Your task to perform on an android device: turn on data saver in the chrome app Image 0: 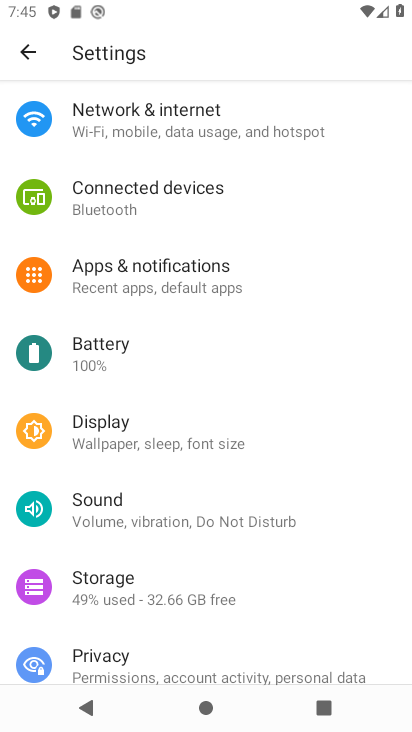
Step 0: press home button
Your task to perform on an android device: turn on data saver in the chrome app Image 1: 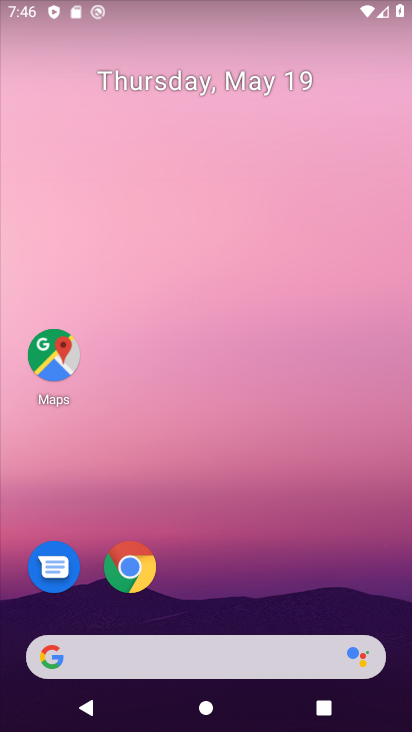
Step 1: click (143, 572)
Your task to perform on an android device: turn on data saver in the chrome app Image 2: 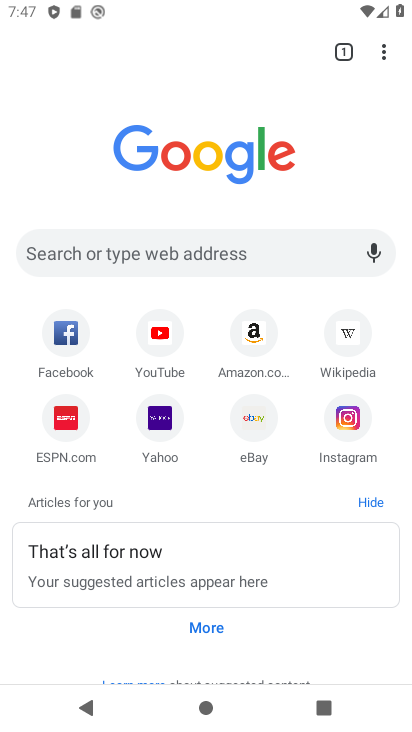
Step 2: click (384, 47)
Your task to perform on an android device: turn on data saver in the chrome app Image 3: 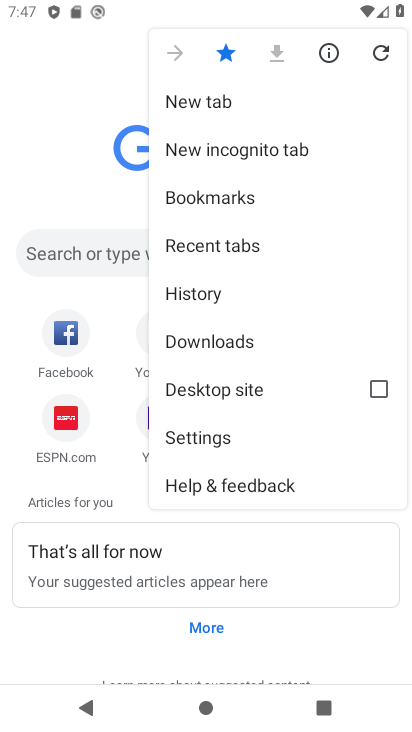
Step 3: click (200, 428)
Your task to perform on an android device: turn on data saver in the chrome app Image 4: 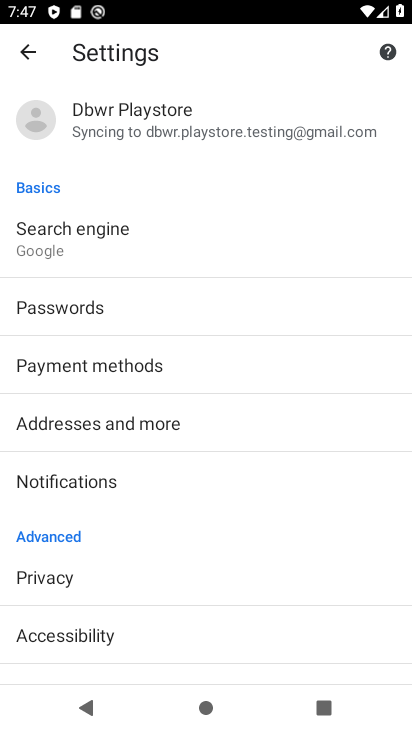
Step 4: drag from (298, 541) to (235, 122)
Your task to perform on an android device: turn on data saver in the chrome app Image 5: 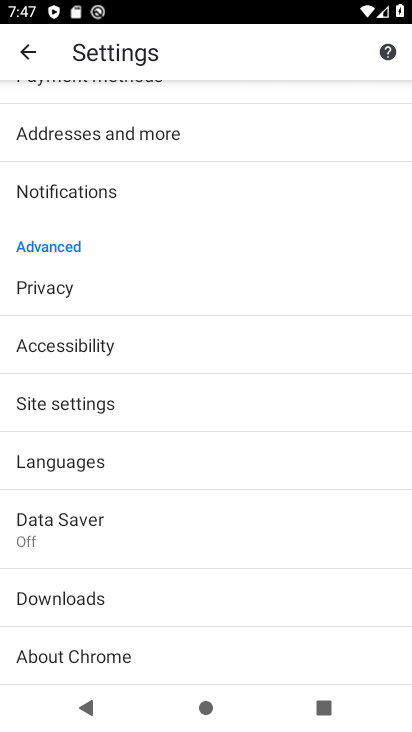
Step 5: click (83, 523)
Your task to perform on an android device: turn on data saver in the chrome app Image 6: 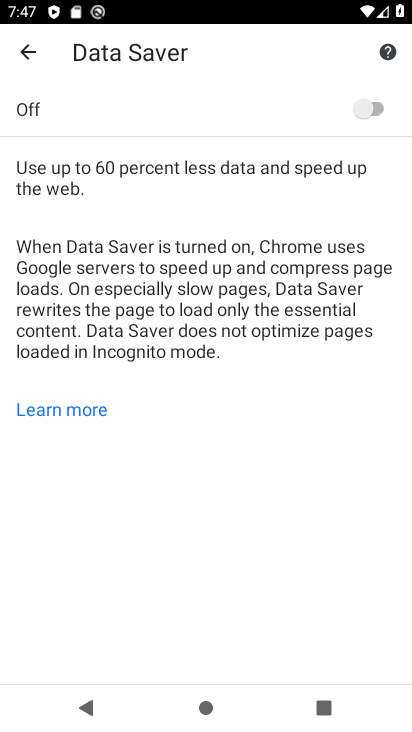
Step 6: click (366, 111)
Your task to perform on an android device: turn on data saver in the chrome app Image 7: 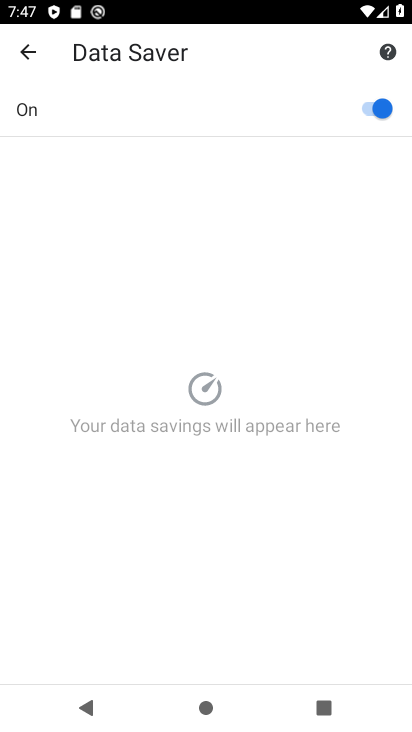
Step 7: task complete